Your task to perform on an android device: Go to CNN.com Image 0: 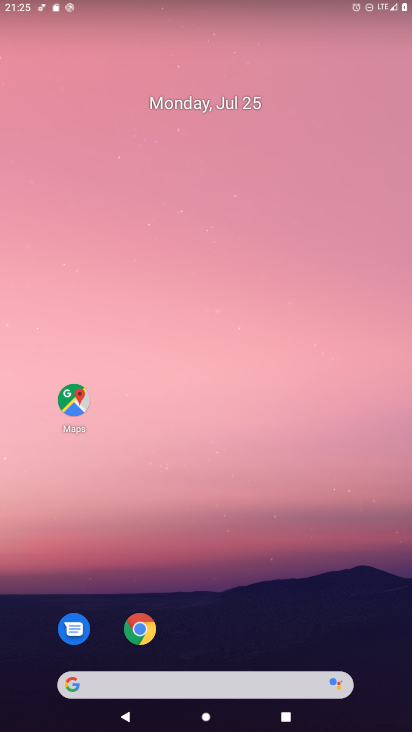
Step 0: click (141, 629)
Your task to perform on an android device: Go to CNN.com Image 1: 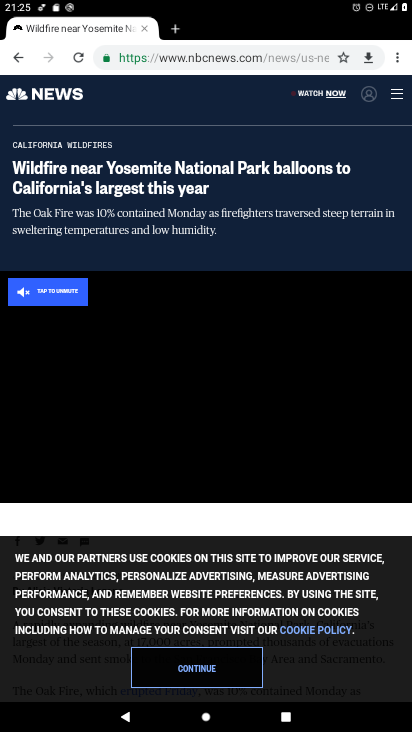
Step 1: click (293, 56)
Your task to perform on an android device: Go to CNN.com Image 2: 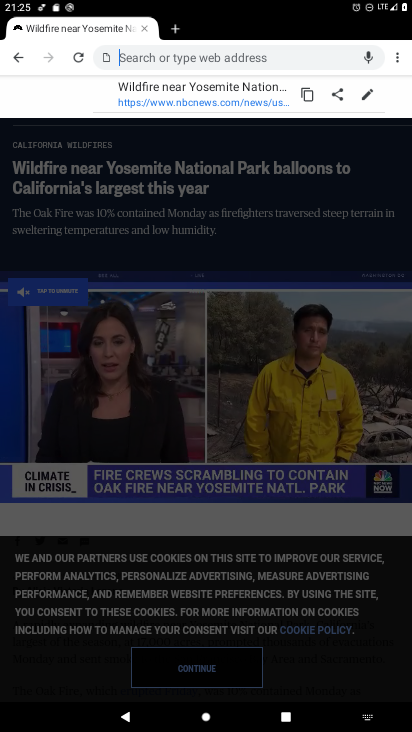
Step 2: type "CNN.com"
Your task to perform on an android device: Go to CNN.com Image 3: 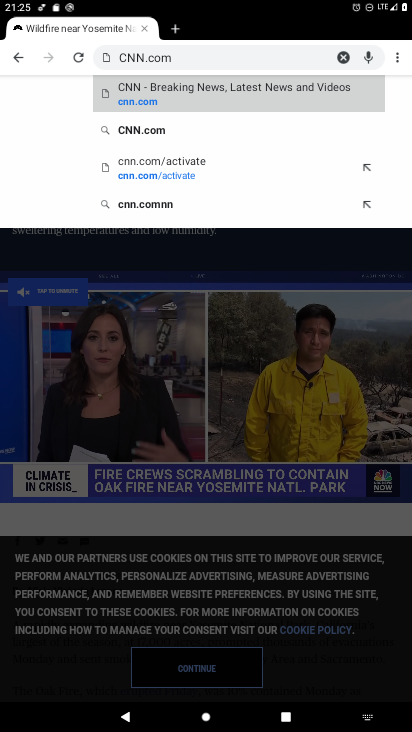
Step 3: click (235, 95)
Your task to perform on an android device: Go to CNN.com Image 4: 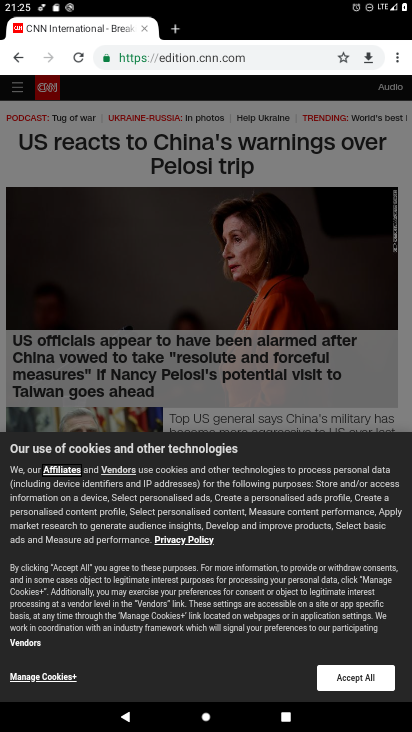
Step 4: task complete